Your task to perform on an android device: Open Amazon Image 0: 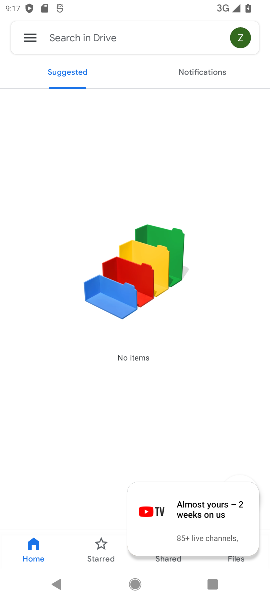
Step 0: press home button
Your task to perform on an android device: Open Amazon Image 1: 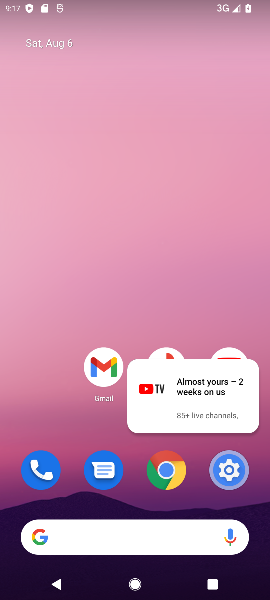
Step 1: click (223, 256)
Your task to perform on an android device: Open Amazon Image 2: 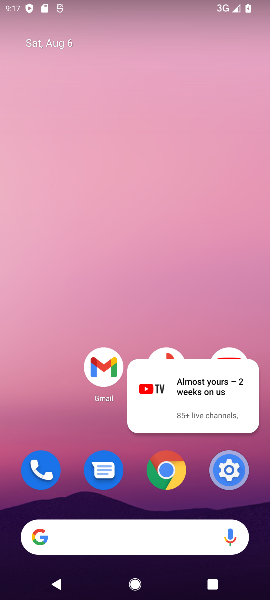
Step 2: drag from (107, 532) to (146, 116)
Your task to perform on an android device: Open Amazon Image 3: 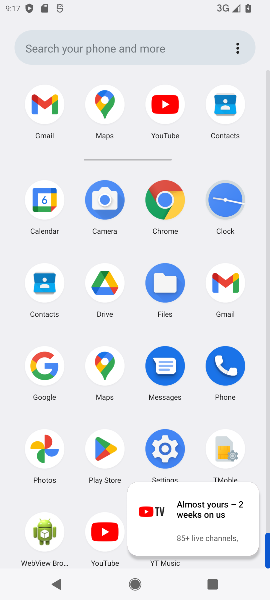
Step 3: drag from (157, 342) to (191, 46)
Your task to perform on an android device: Open Amazon Image 4: 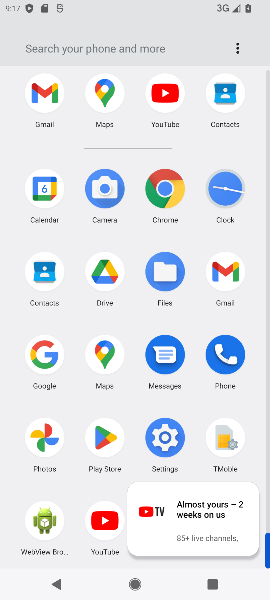
Step 4: click (165, 190)
Your task to perform on an android device: Open Amazon Image 5: 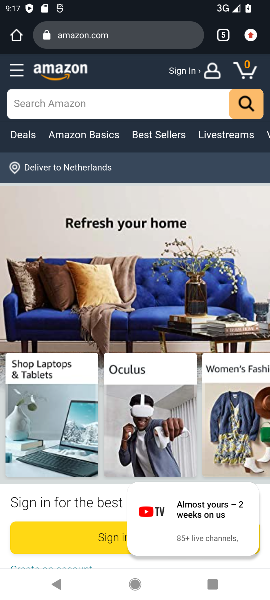
Step 5: task complete